Your task to perform on an android device: Open the map Image 0: 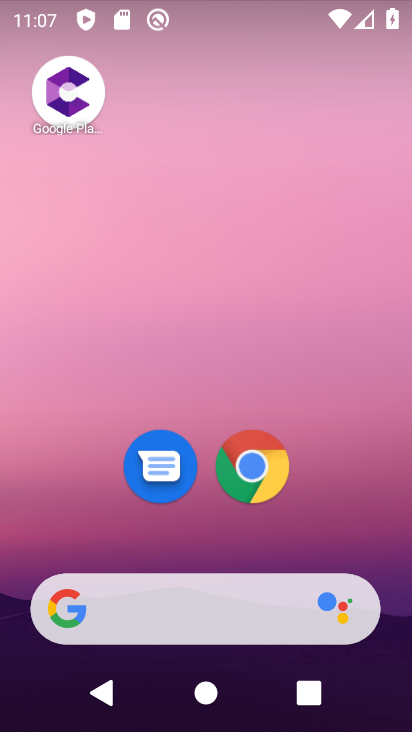
Step 0: drag from (205, 393) to (393, 293)
Your task to perform on an android device: Open the map Image 1: 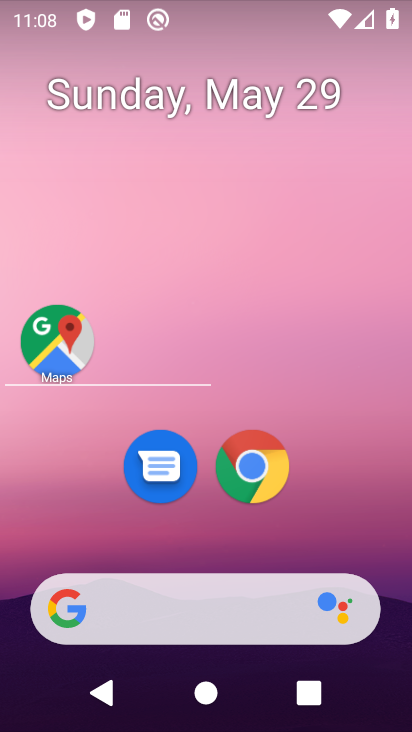
Step 1: drag from (24, 377) to (173, 374)
Your task to perform on an android device: Open the map Image 2: 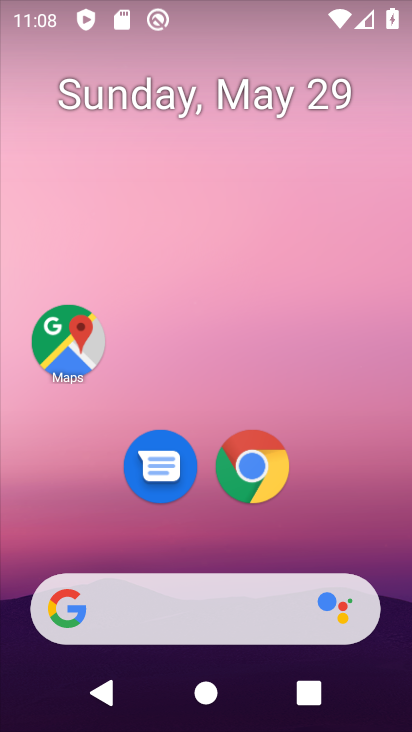
Step 2: drag from (363, 548) to (336, 202)
Your task to perform on an android device: Open the map Image 3: 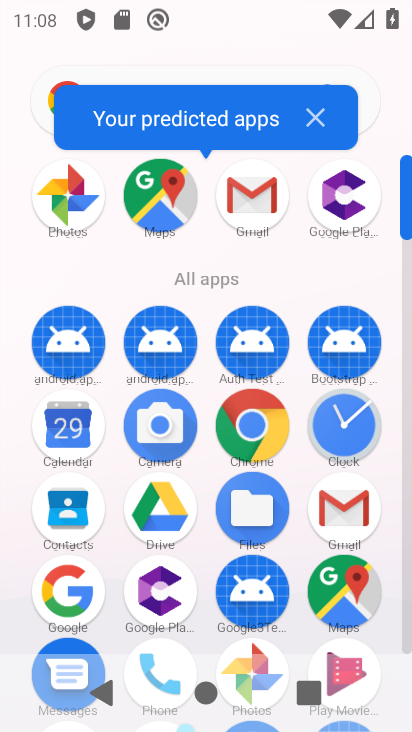
Step 3: click (176, 212)
Your task to perform on an android device: Open the map Image 4: 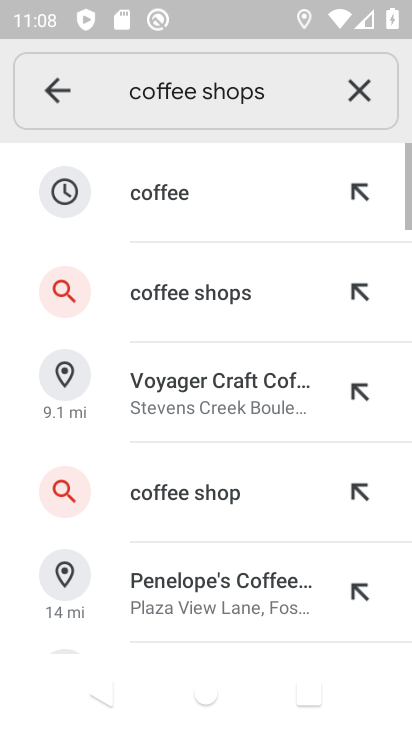
Step 4: task complete